Your task to perform on an android device: check google app version Image 0: 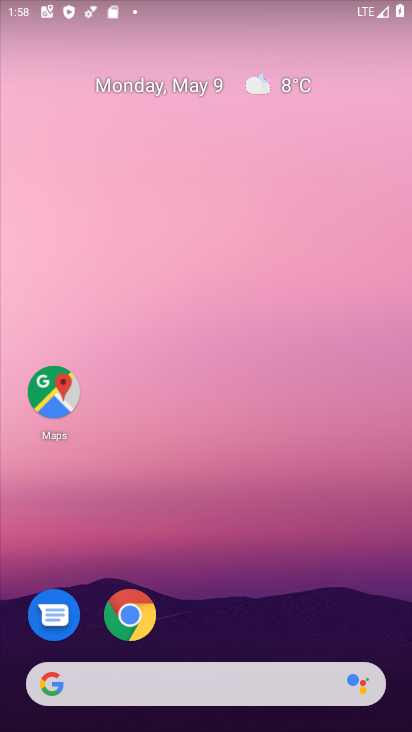
Step 0: click (128, 615)
Your task to perform on an android device: check google app version Image 1: 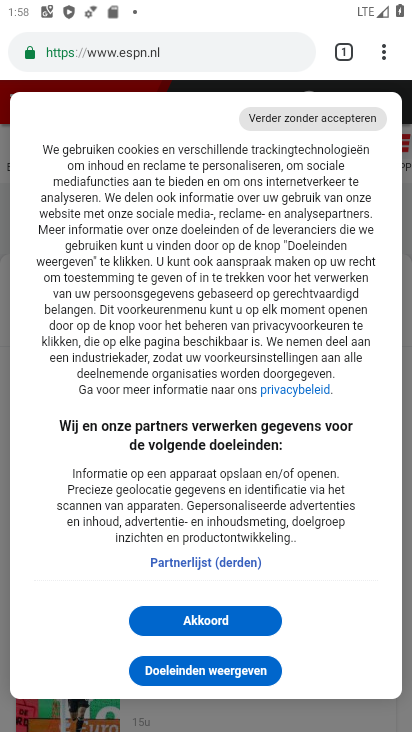
Step 1: click (383, 53)
Your task to perform on an android device: check google app version Image 2: 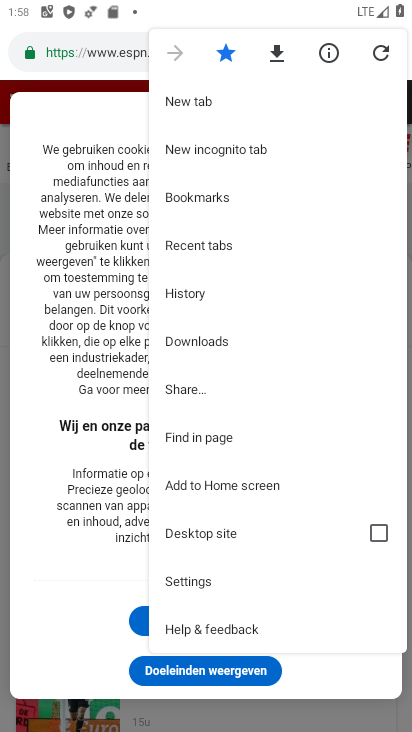
Step 2: click (185, 574)
Your task to perform on an android device: check google app version Image 3: 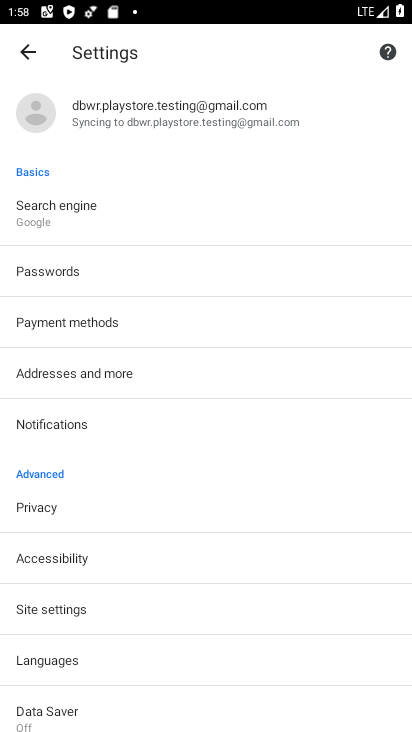
Step 3: drag from (219, 617) to (210, 247)
Your task to perform on an android device: check google app version Image 4: 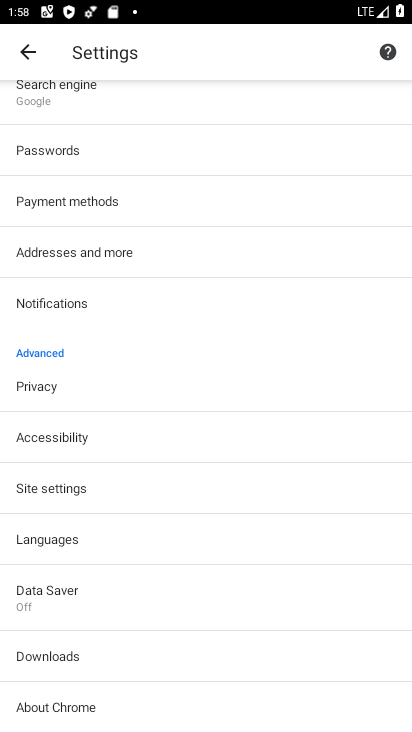
Step 4: click (43, 703)
Your task to perform on an android device: check google app version Image 5: 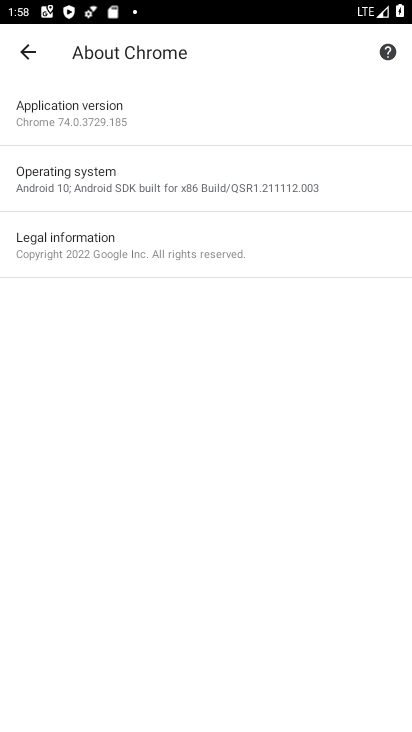
Step 5: click (78, 105)
Your task to perform on an android device: check google app version Image 6: 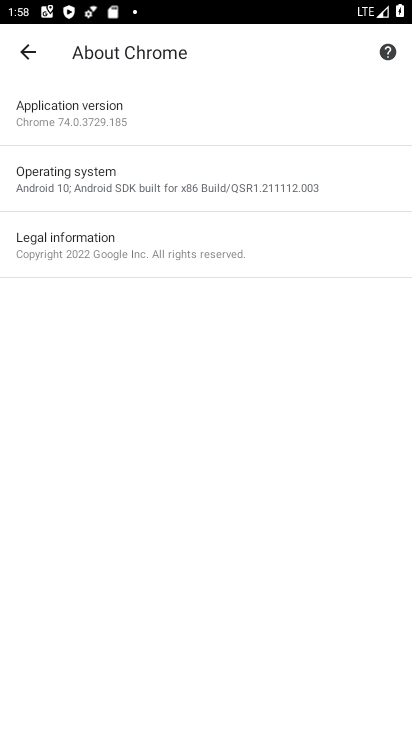
Step 6: task complete